Your task to perform on an android device: Find coffee shops on Maps Image 0: 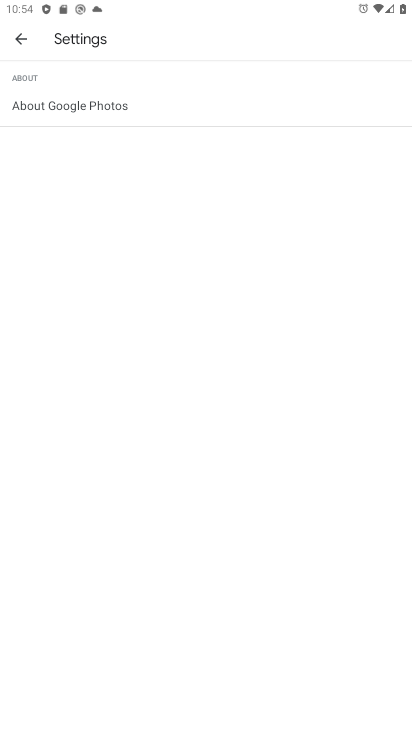
Step 0: press home button
Your task to perform on an android device: Find coffee shops on Maps Image 1: 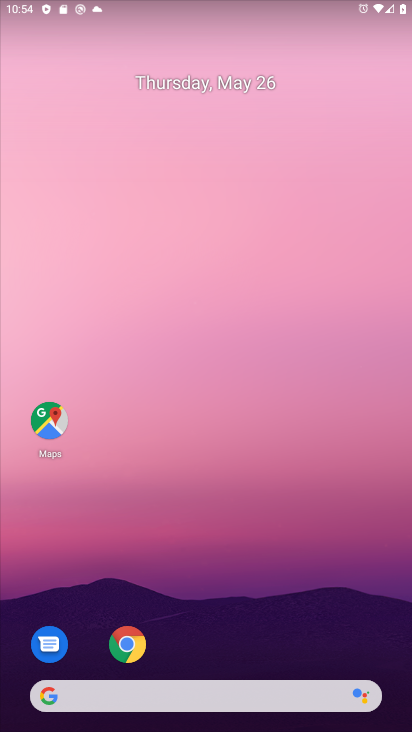
Step 1: click (55, 407)
Your task to perform on an android device: Find coffee shops on Maps Image 2: 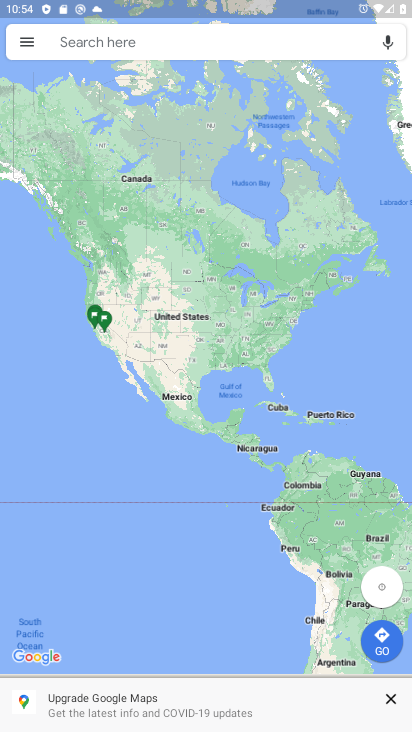
Step 2: click (172, 58)
Your task to perform on an android device: Find coffee shops on Maps Image 3: 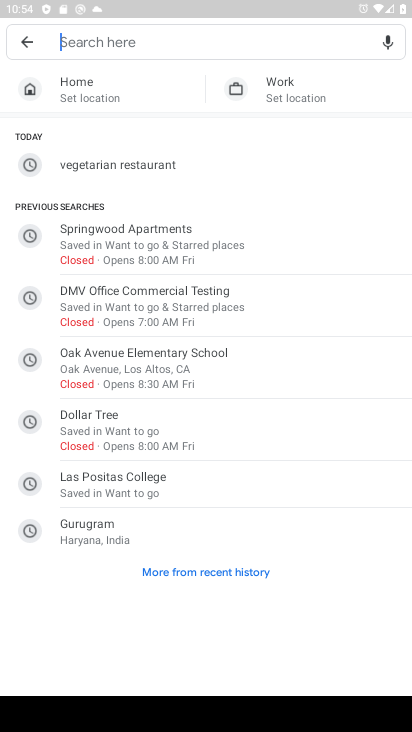
Step 3: type "coffee shops"
Your task to perform on an android device: Find coffee shops on Maps Image 4: 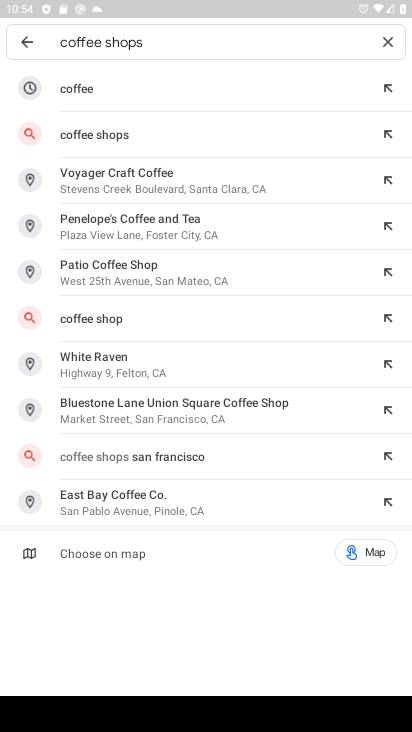
Step 4: click (158, 137)
Your task to perform on an android device: Find coffee shops on Maps Image 5: 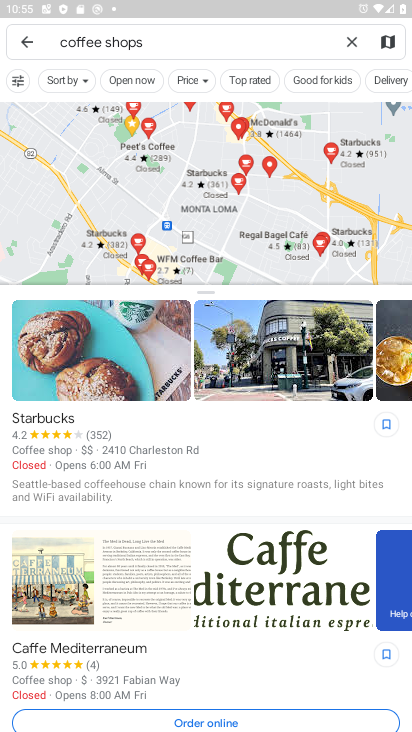
Step 5: task complete